Your task to perform on an android device: change the upload size in google photos Image 0: 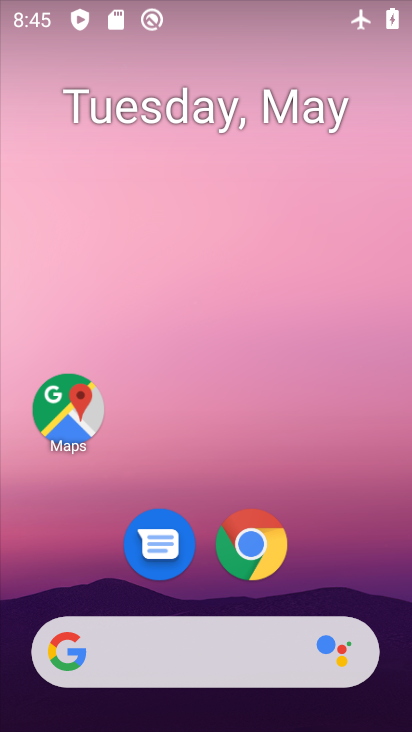
Step 0: drag from (361, 587) to (335, 137)
Your task to perform on an android device: change the upload size in google photos Image 1: 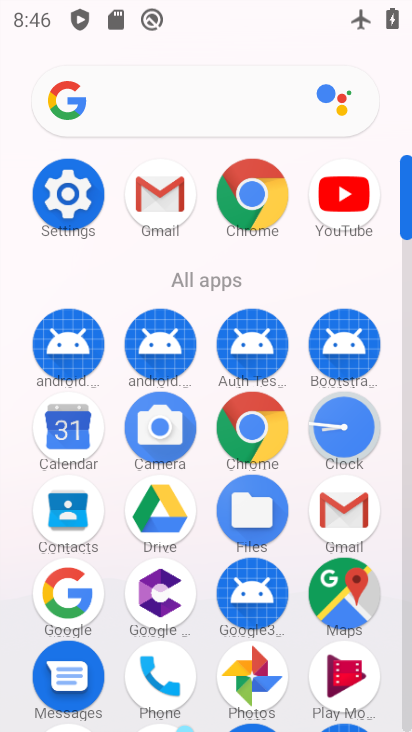
Step 1: click (258, 686)
Your task to perform on an android device: change the upload size in google photos Image 2: 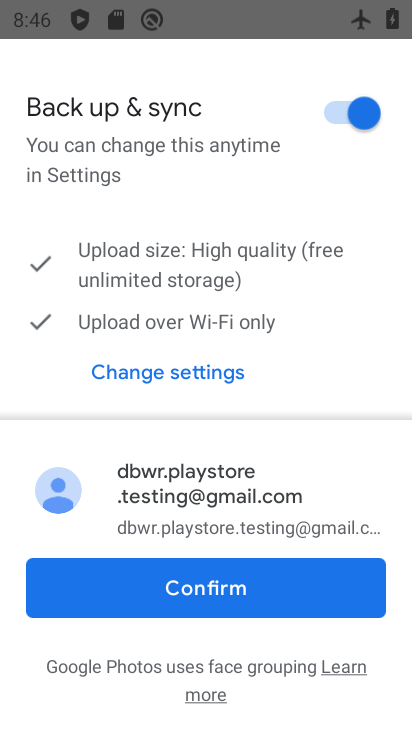
Step 2: click (277, 583)
Your task to perform on an android device: change the upload size in google photos Image 3: 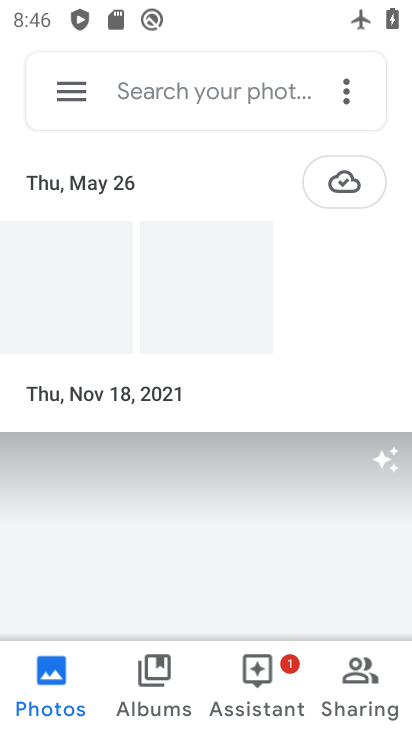
Step 3: click (71, 105)
Your task to perform on an android device: change the upload size in google photos Image 4: 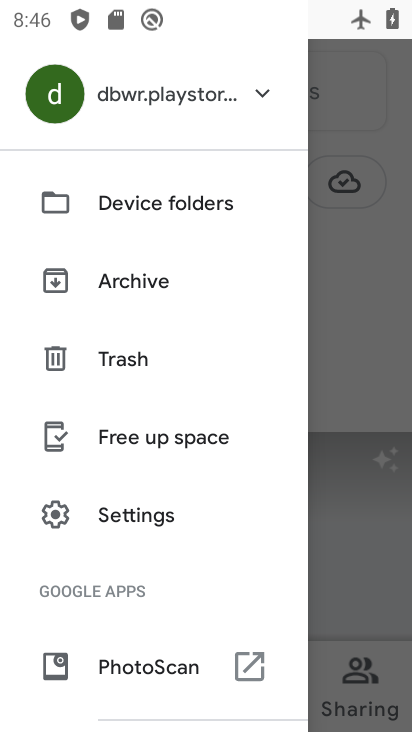
Step 4: click (166, 519)
Your task to perform on an android device: change the upload size in google photos Image 5: 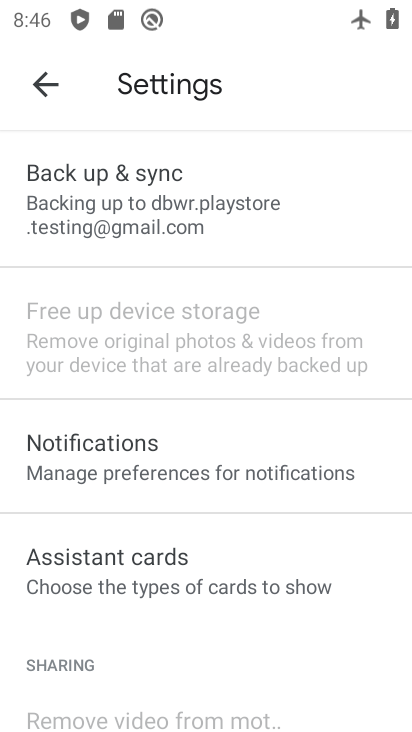
Step 5: click (240, 222)
Your task to perform on an android device: change the upload size in google photos Image 6: 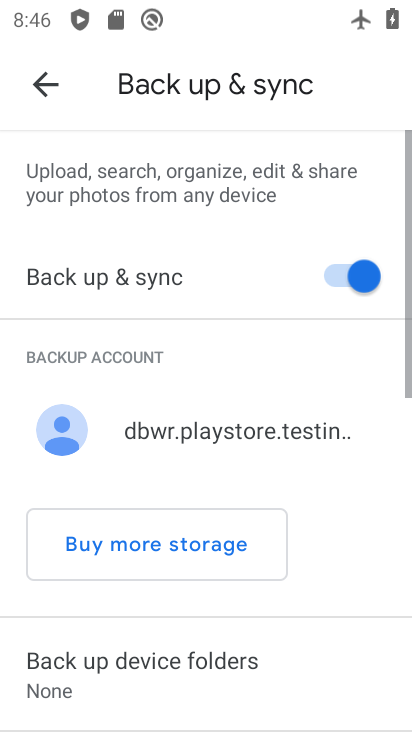
Step 6: drag from (275, 659) to (271, 311)
Your task to perform on an android device: change the upload size in google photos Image 7: 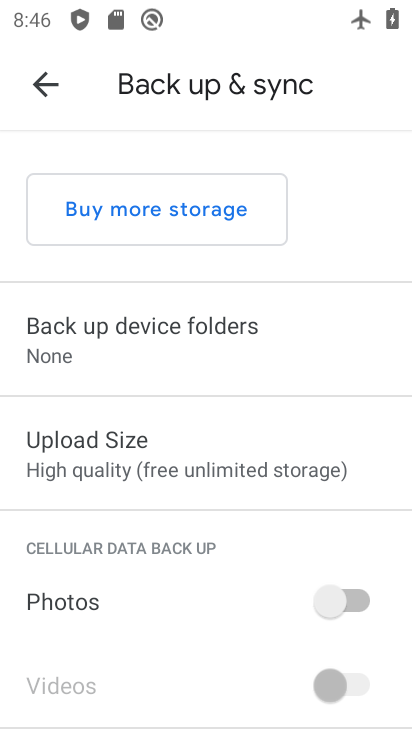
Step 7: click (200, 467)
Your task to perform on an android device: change the upload size in google photos Image 8: 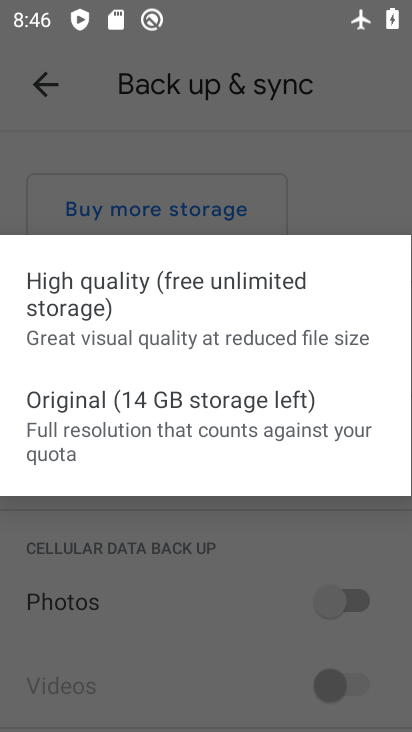
Step 8: click (213, 417)
Your task to perform on an android device: change the upload size in google photos Image 9: 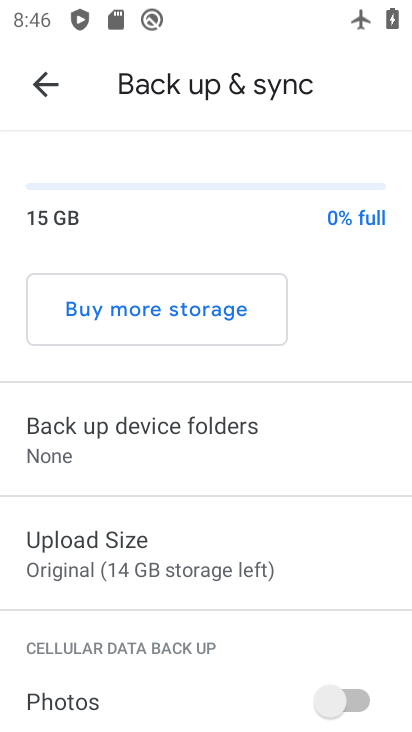
Step 9: task complete